Your task to perform on an android device: open a bookmark in the chrome app Image 0: 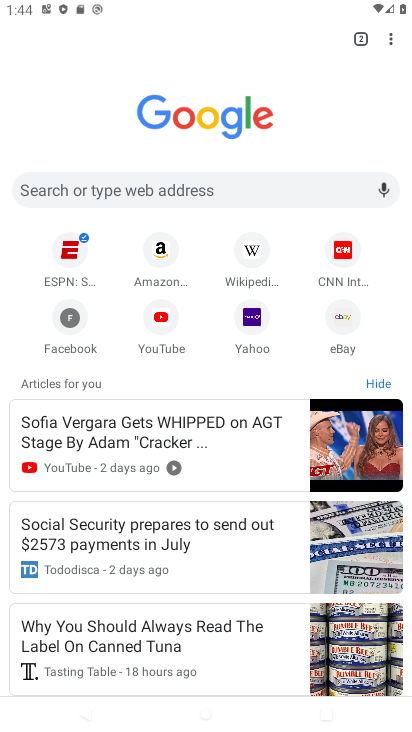
Step 0: drag from (399, 45) to (272, 149)
Your task to perform on an android device: open a bookmark in the chrome app Image 1: 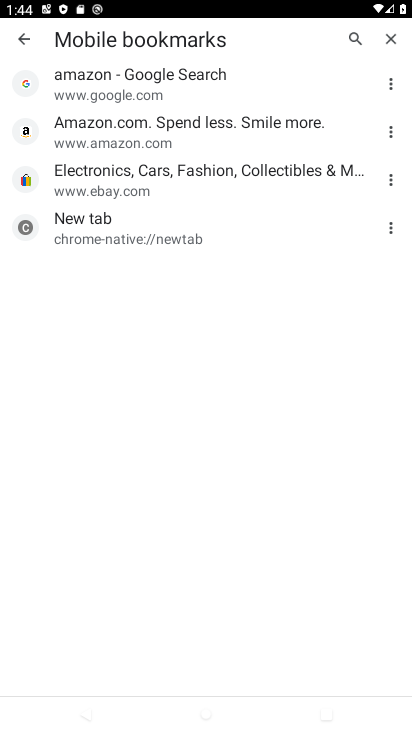
Step 1: task complete